Your task to perform on an android device: turn off improve location accuracy Image 0: 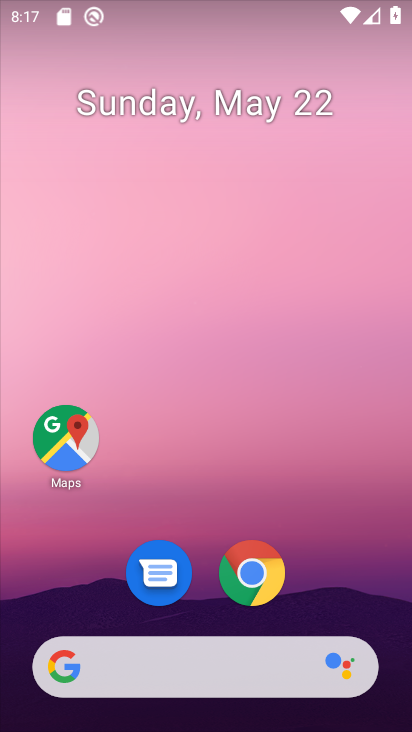
Step 0: drag from (193, 582) to (252, 5)
Your task to perform on an android device: turn off improve location accuracy Image 1: 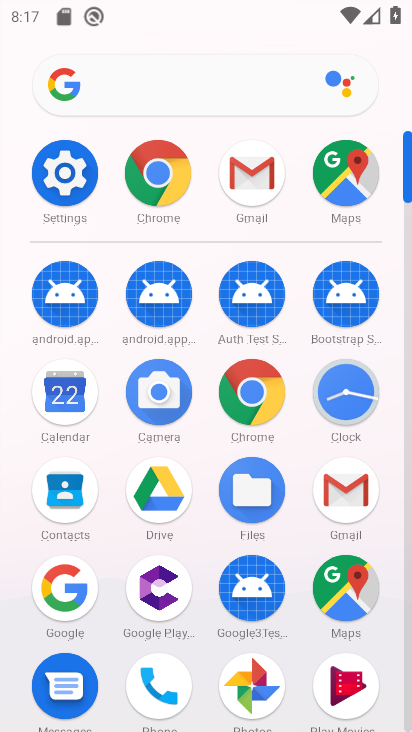
Step 1: click (51, 158)
Your task to perform on an android device: turn off improve location accuracy Image 2: 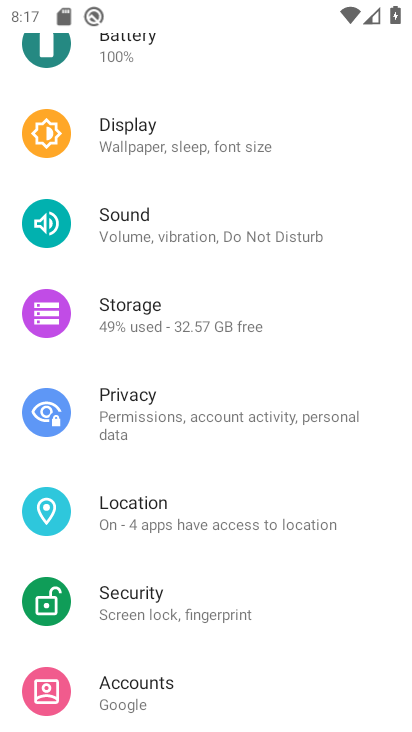
Step 2: drag from (209, 489) to (330, 125)
Your task to perform on an android device: turn off improve location accuracy Image 3: 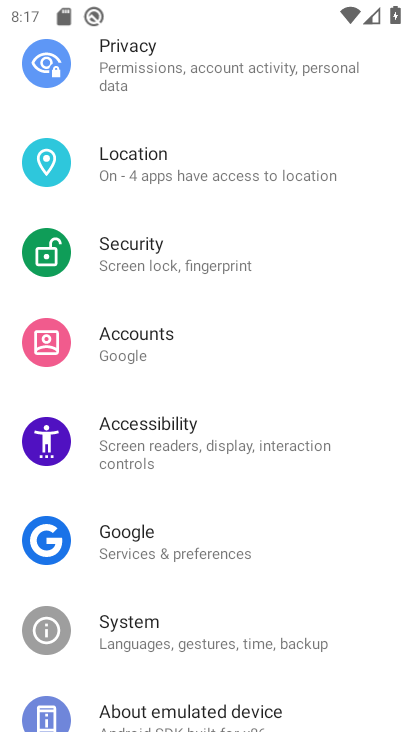
Step 3: click (186, 166)
Your task to perform on an android device: turn off improve location accuracy Image 4: 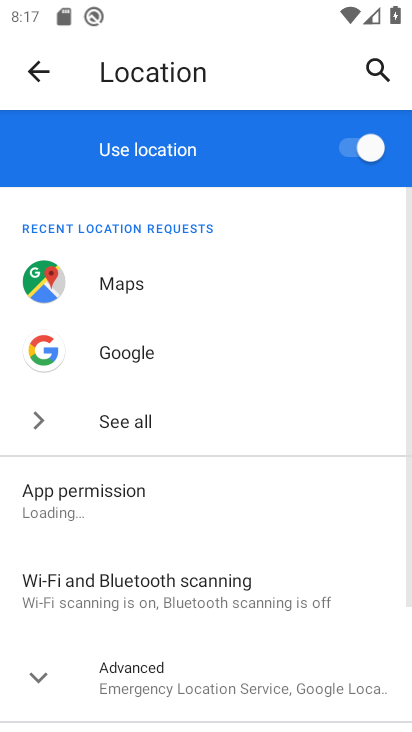
Step 4: drag from (272, 550) to (300, 184)
Your task to perform on an android device: turn off improve location accuracy Image 5: 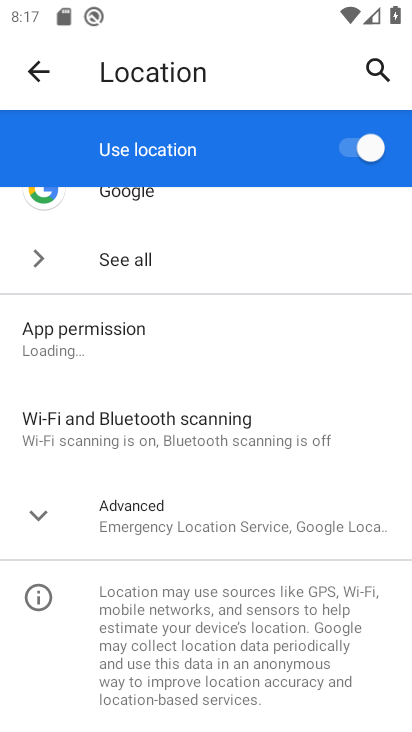
Step 5: click (137, 513)
Your task to perform on an android device: turn off improve location accuracy Image 6: 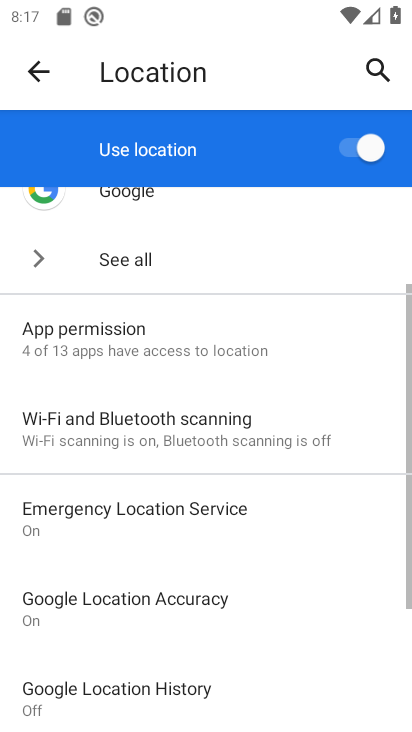
Step 6: drag from (266, 498) to (320, 249)
Your task to perform on an android device: turn off improve location accuracy Image 7: 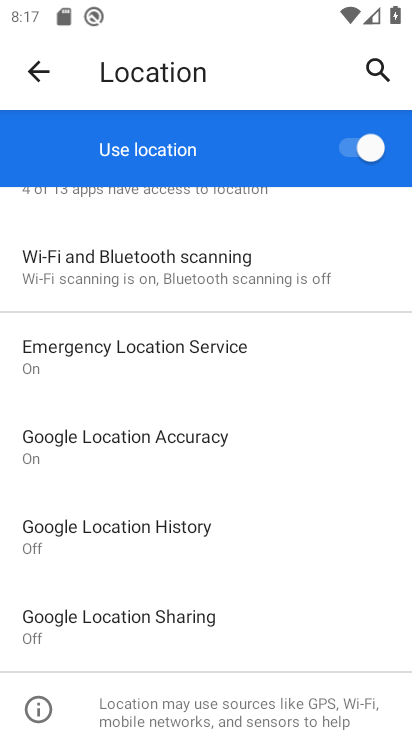
Step 7: click (155, 454)
Your task to perform on an android device: turn off improve location accuracy Image 8: 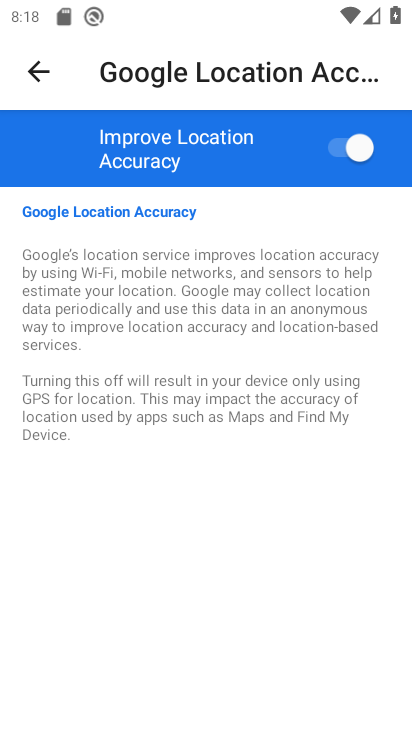
Step 8: click (330, 144)
Your task to perform on an android device: turn off improve location accuracy Image 9: 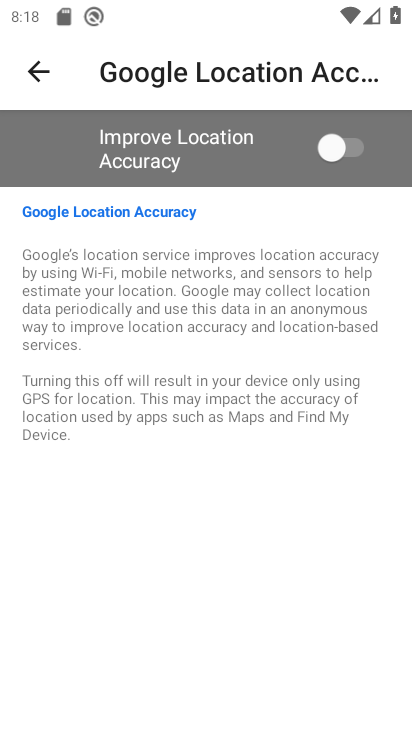
Step 9: task complete